Your task to perform on an android device: Set the phone to "Do not disturb". Image 0: 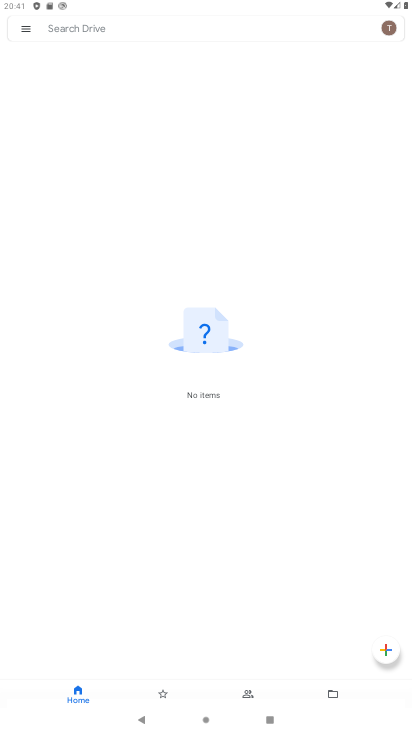
Step 0: press home button
Your task to perform on an android device: Set the phone to "Do not disturb". Image 1: 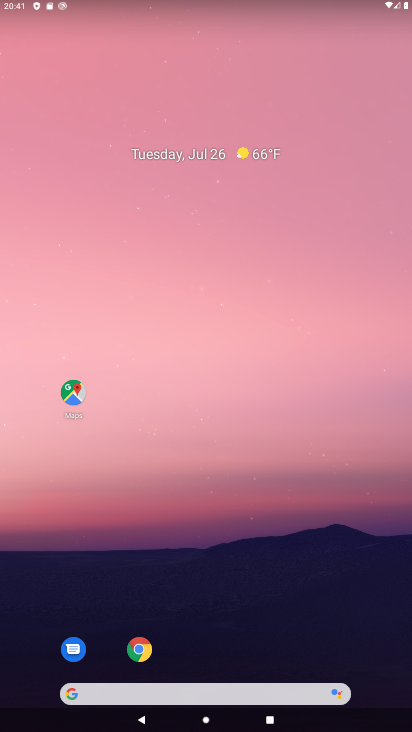
Step 1: drag from (199, 717) to (131, 268)
Your task to perform on an android device: Set the phone to "Do not disturb". Image 2: 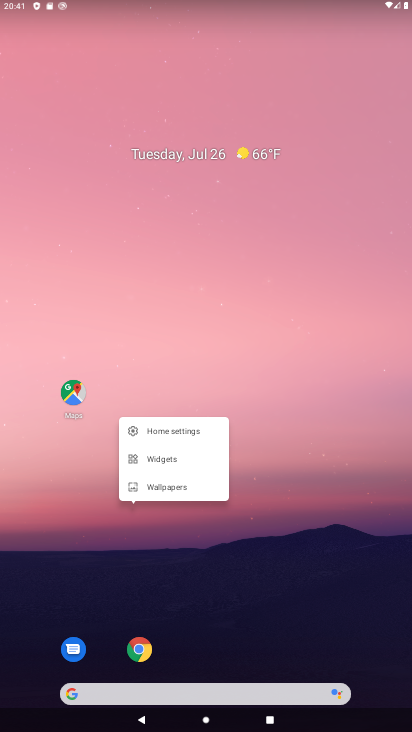
Step 2: drag from (201, 720) to (252, 92)
Your task to perform on an android device: Set the phone to "Do not disturb". Image 3: 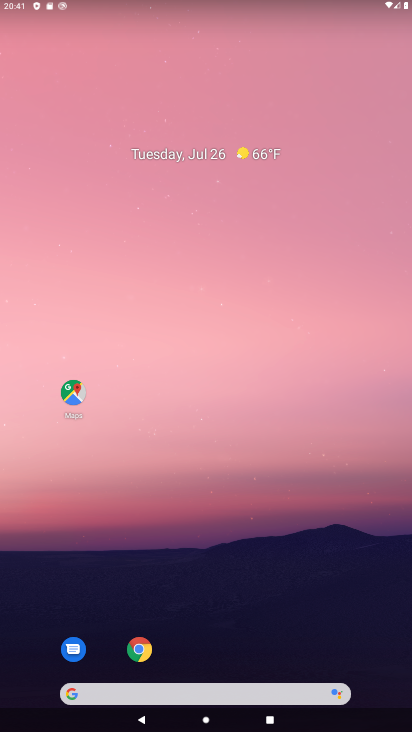
Step 3: drag from (244, 718) to (285, 36)
Your task to perform on an android device: Set the phone to "Do not disturb". Image 4: 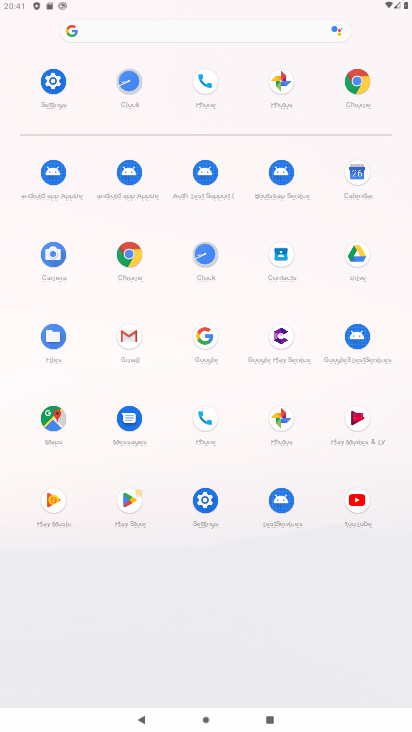
Step 4: click (55, 74)
Your task to perform on an android device: Set the phone to "Do not disturb". Image 5: 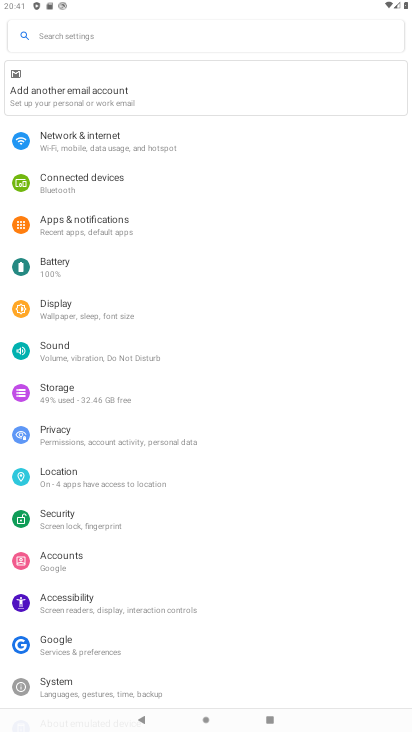
Step 5: click (152, 351)
Your task to perform on an android device: Set the phone to "Do not disturb". Image 6: 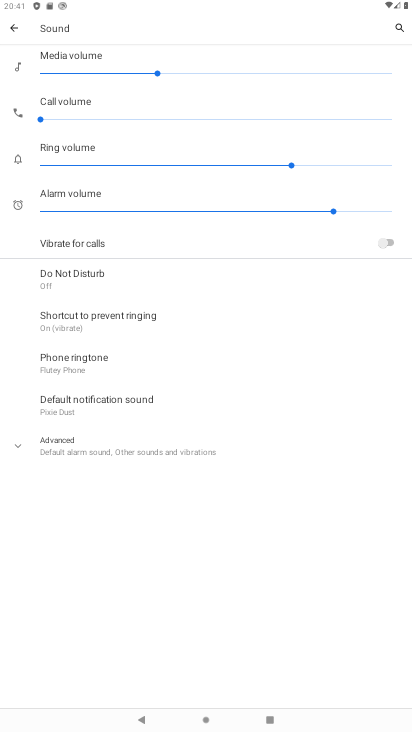
Step 6: click (117, 279)
Your task to perform on an android device: Set the phone to "Do not disturb". Image 7: 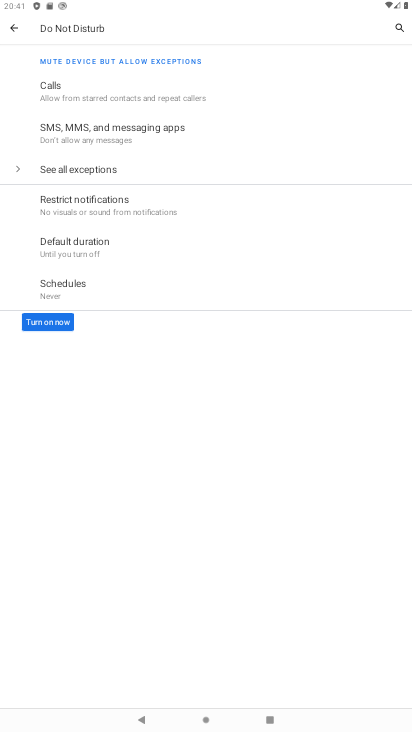
Step 7: click (42, 317)
Your task to perform on an android device: Set the phone to "Do not disturb". Image 8: 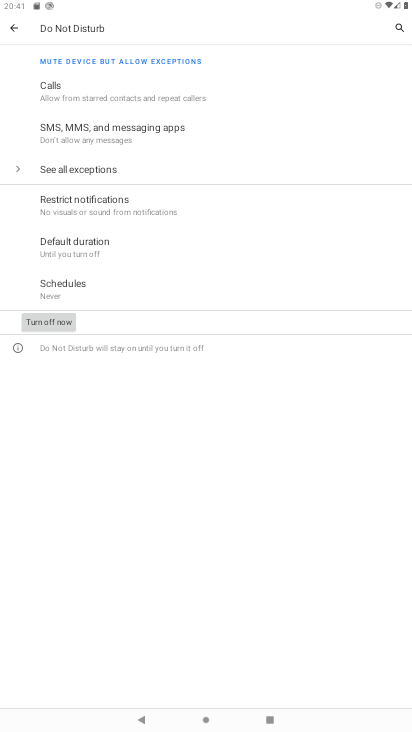
Step 8: task complete